Your task to perform on an android device: Go to Maps Image 0: 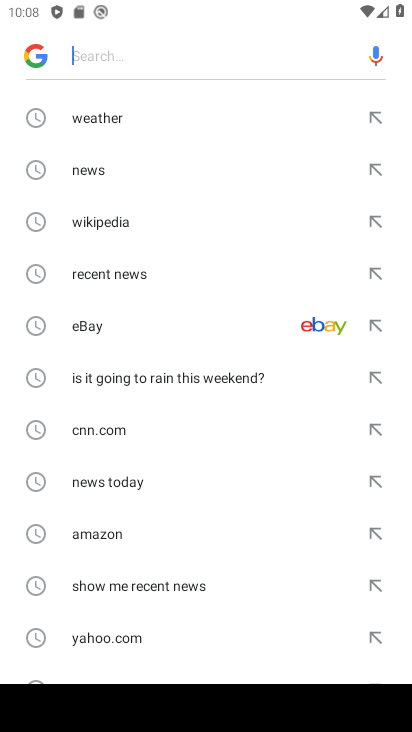
Step 0: press home button
Your task to perform on an android device: Go to Maps Image 1: 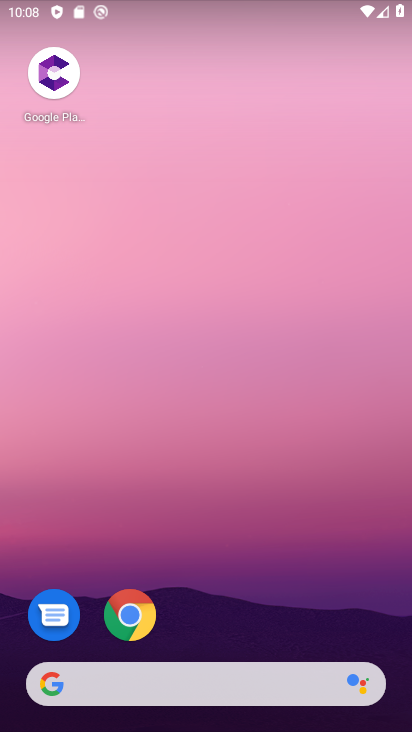
Step 1: press home button
Your task to perform on an android device: Go to Maps Image 2: 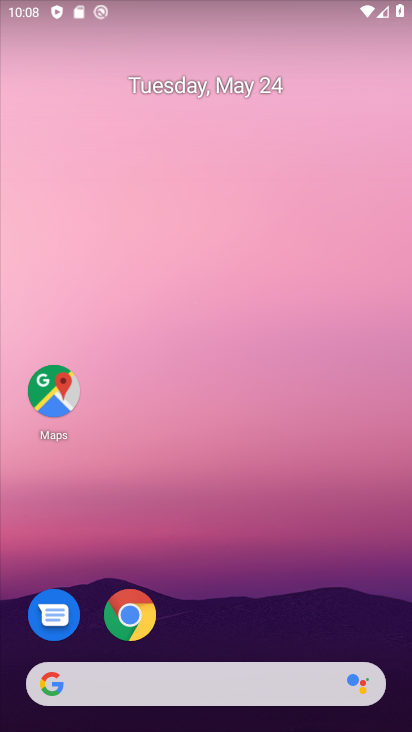
Step 2: click (30, 391)
Your task to perform on an android device: Go to Maps Image 3: 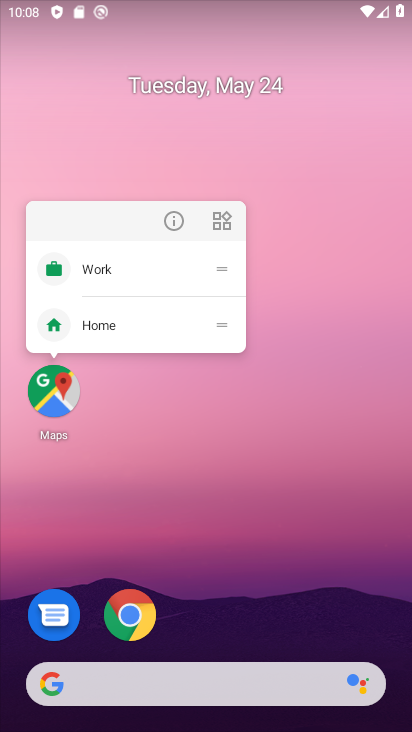
Step 3: click (50, 400)
Your task to perform on an android device: Go to Maps Image 4: 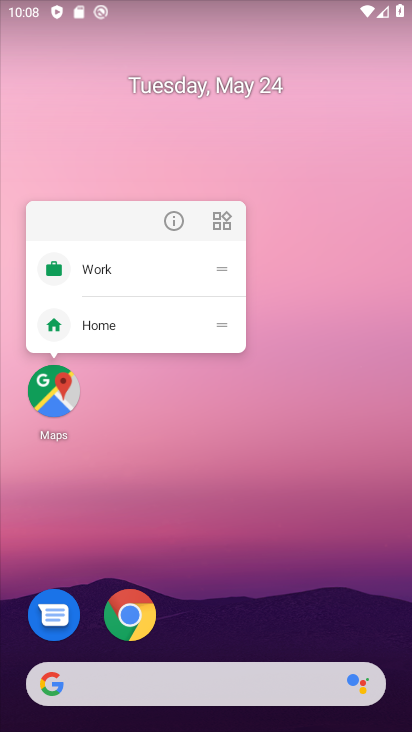
Step 4: click (50, 400)
Your task to perform on an android device: Go to Maps Image 5: 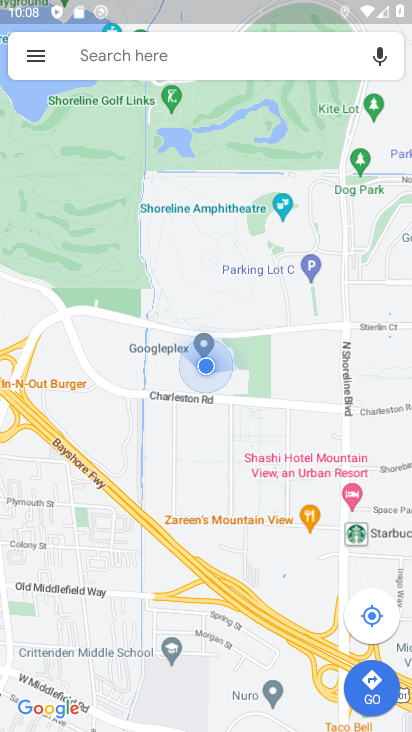
Step 5: task complete